Your task to perform on an android device: Clear all items from cart on newegg. Search for usb-c to usb-b on newegg, select the first entry, add it to the cart, then select checkout. Image 0: 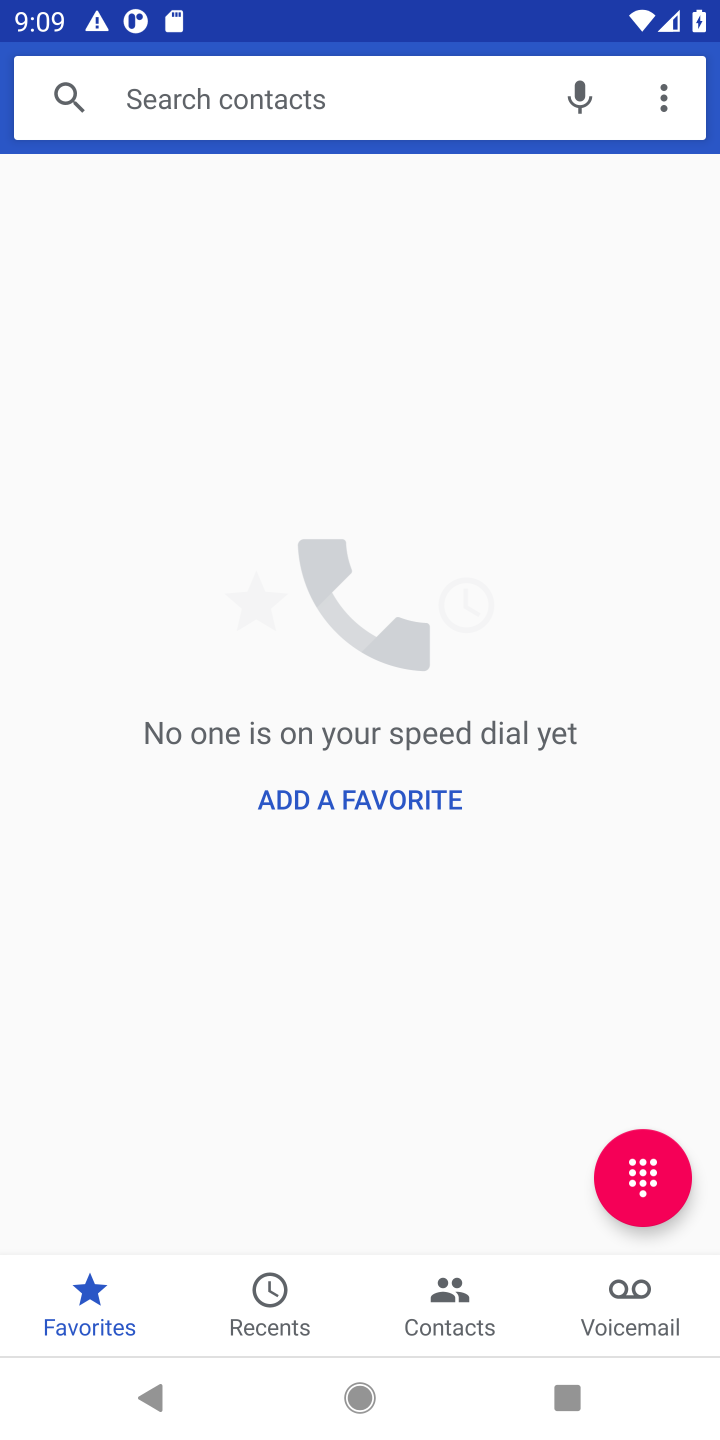
Step 0: press home button
Your task to perform on an android device: Clear all items from cart on newegg. Search for usb-c to usb-b on newegg, select the first entry, add it to the cart, then select checkout. Image 1: 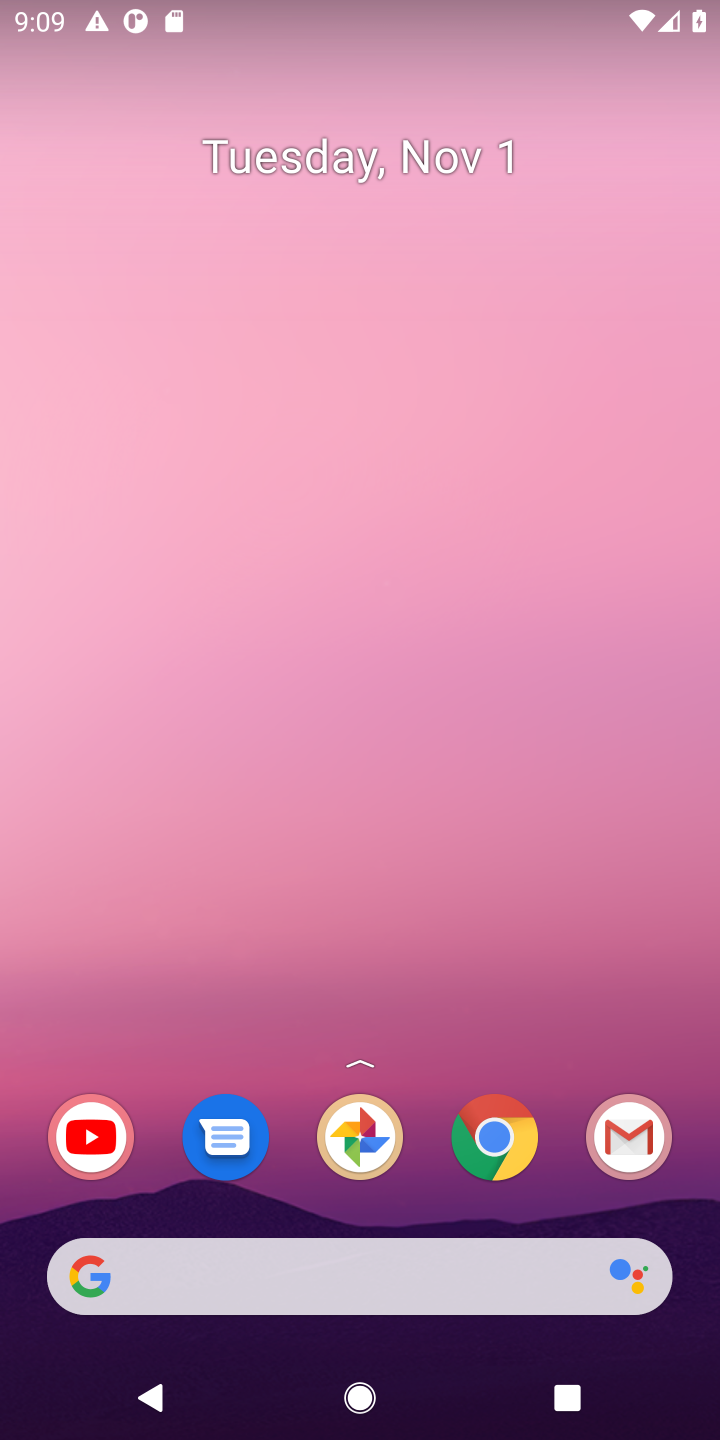
Step 1: click (262, 1255)
Your task to perform on an android device: Clear all items from cart on newegg. Search for usb-c to usb-b on newegg, select the first entry, add it to the cart, then select checkout. Image 2: 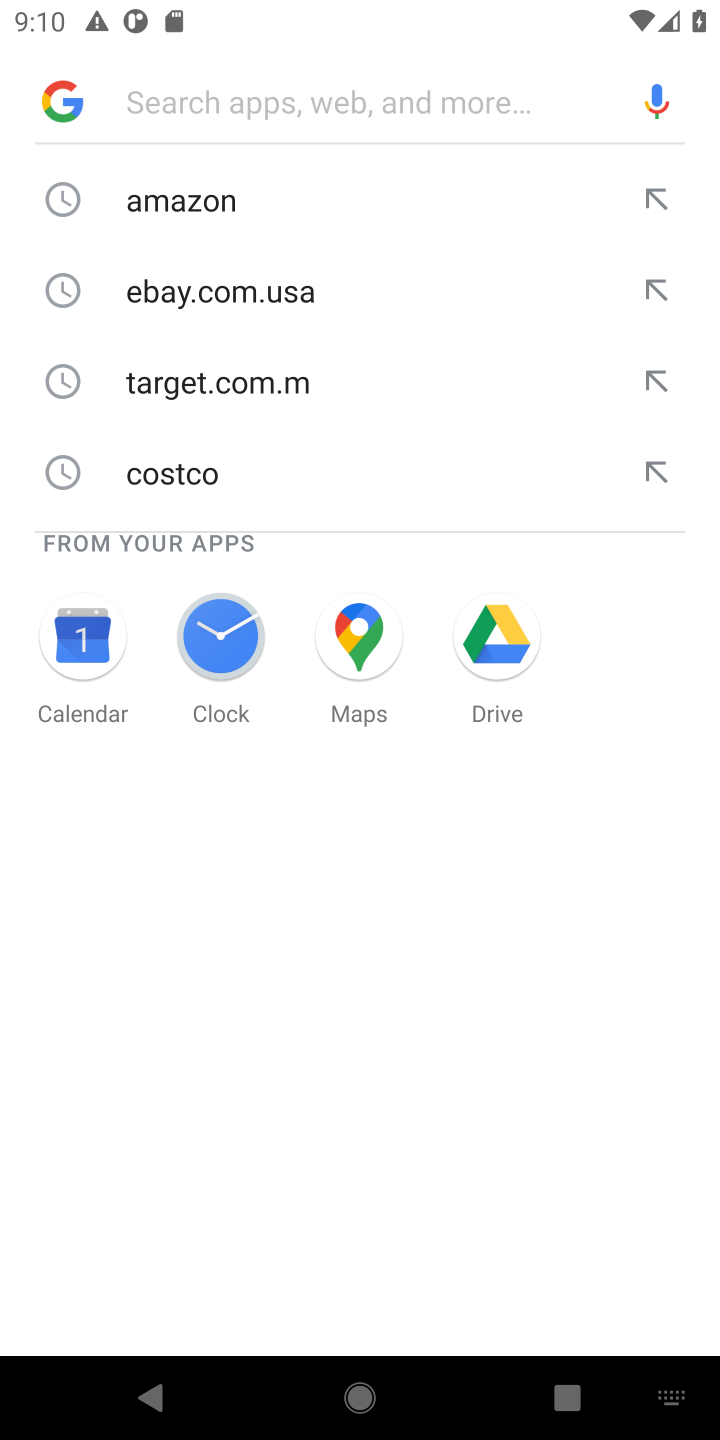
Step 2: type "newegg"
Your task to perform on an android device: Clear all items from cart on newegg. Search for usb-c to usb-b on newegg, select the first entry, add it to the cart, then select checkout. Image 3: 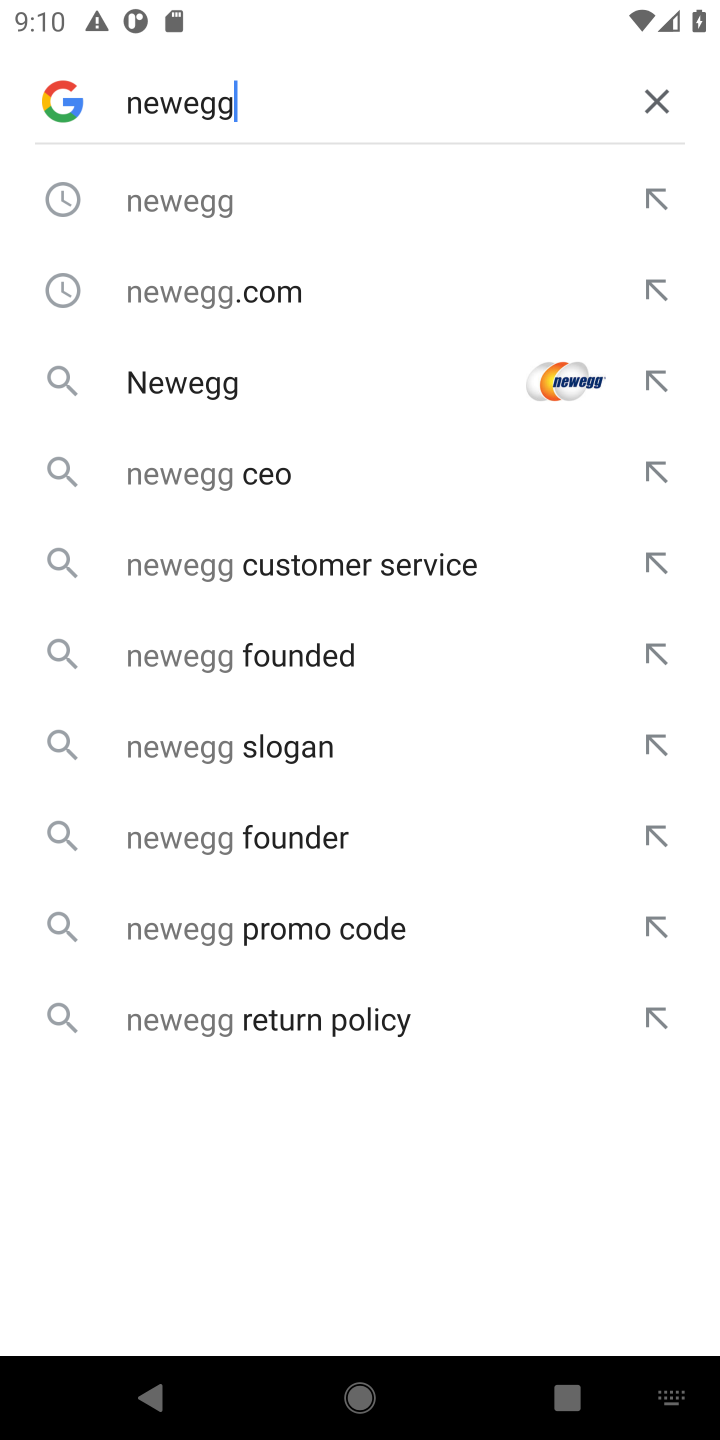
Step 3: click (398, 370)
Your task to perform on an android device: Clear all items from cart on newegg. Search for usb-c to usb-b on newegg, select the first entry, add it to the cart, then select checkout. Image 4: 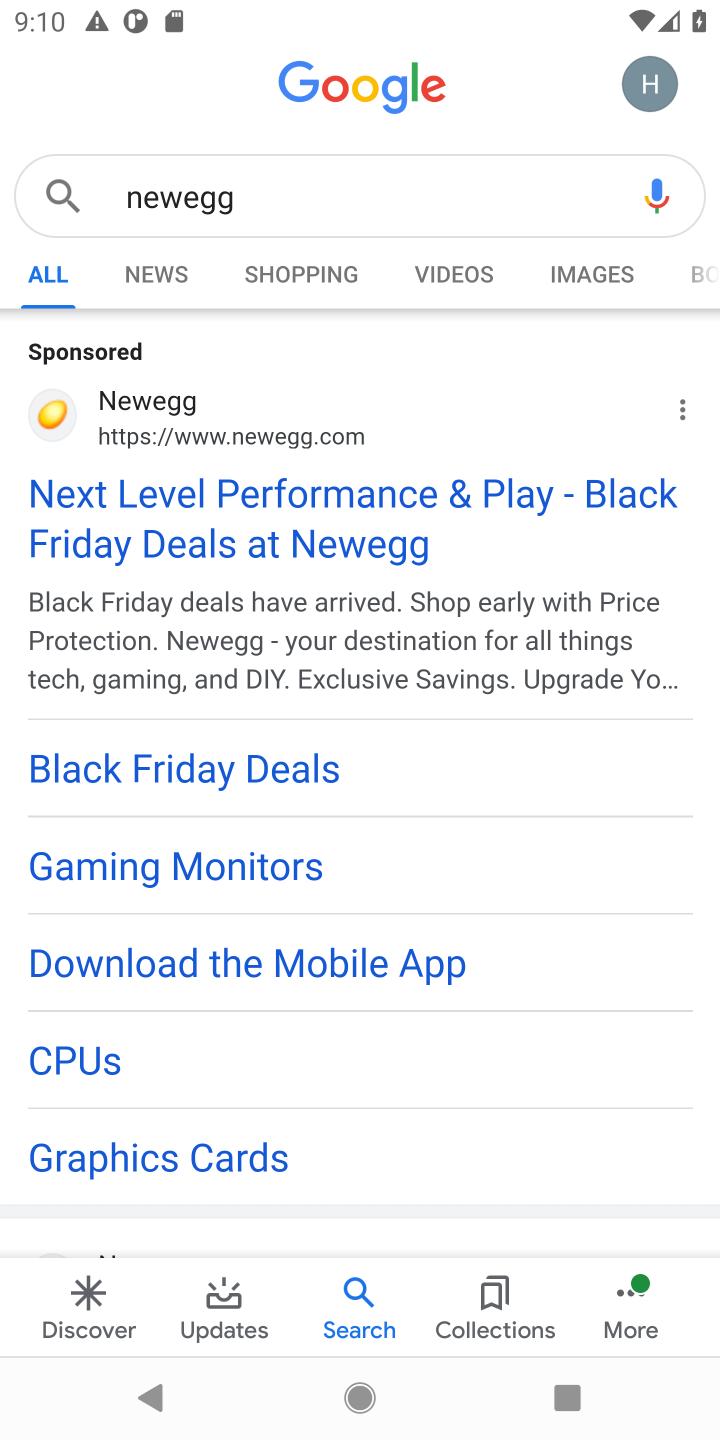
Step 4: click (112, 428)
Your task to perform on an android device: Clear all items from cart on newegg. Search for usb-c to usb-b on newegg, select the first entry, add it to the cart, then select checkout. Image 5: 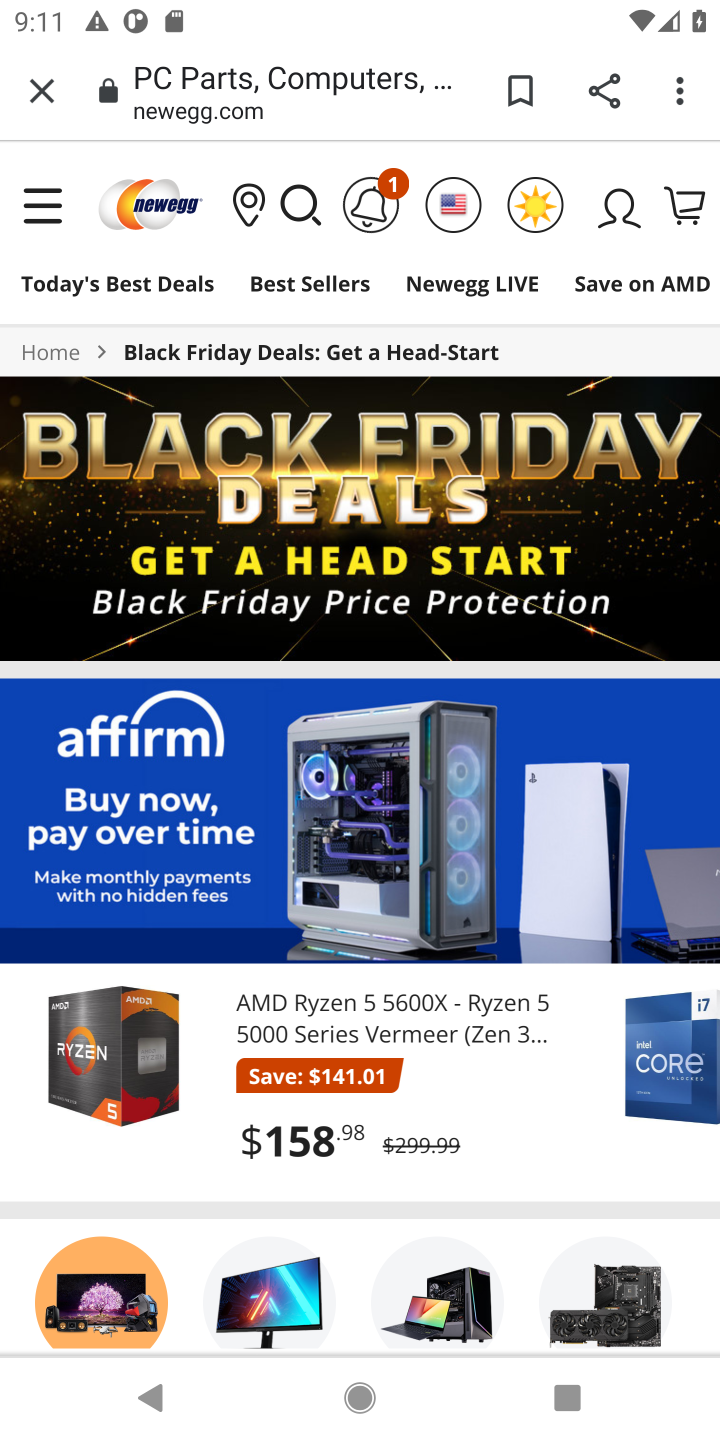
Step 5: click (293, 208)
Your task to perform on an android device: Clear all items from cart on newegg. Search for usb-c to usb-b on newegg, select the first entry, add it to the cart, then select checkout. Image 6: 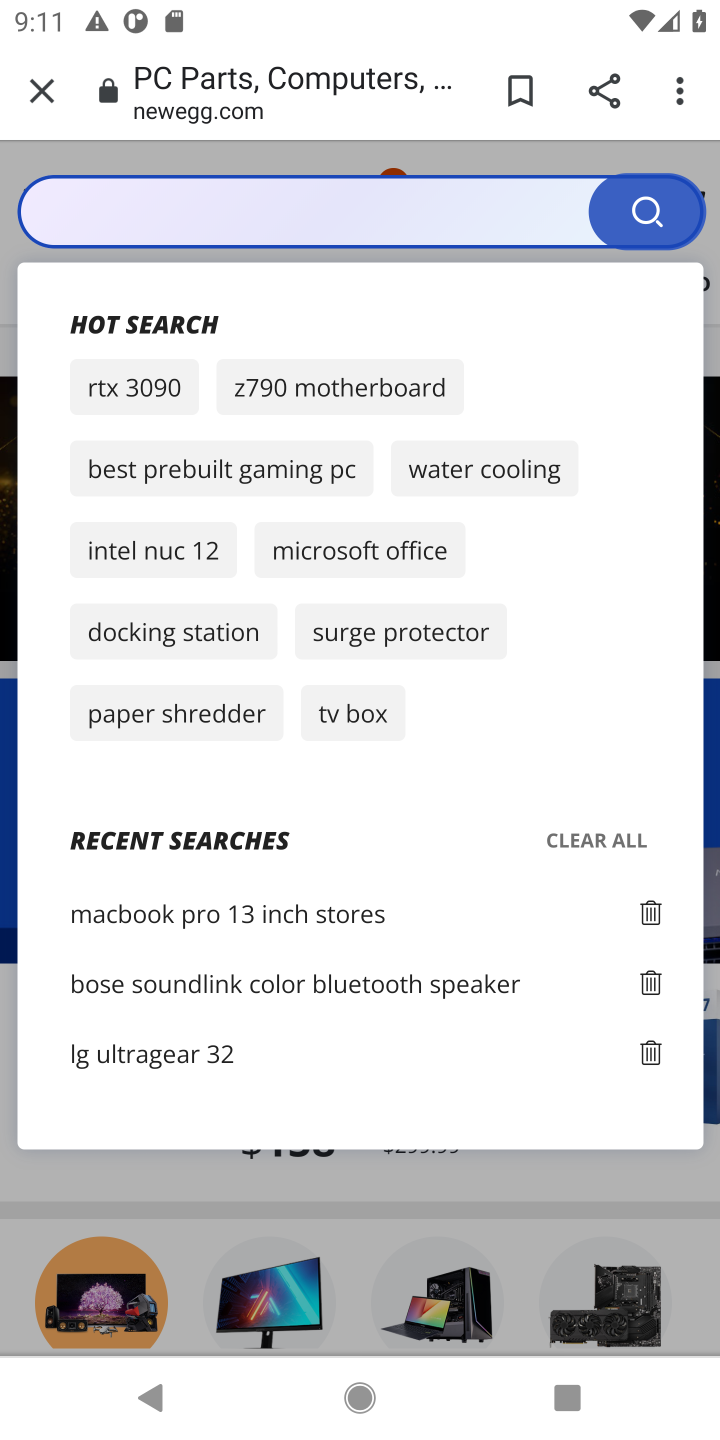
Step 6: click (293, 208)
Your task to perform on an android device: Clear all items from cart on newegg. Search for usb-c to usb-b on newegg, select the first entry, add it to the cart, then select checkout. Image 7: 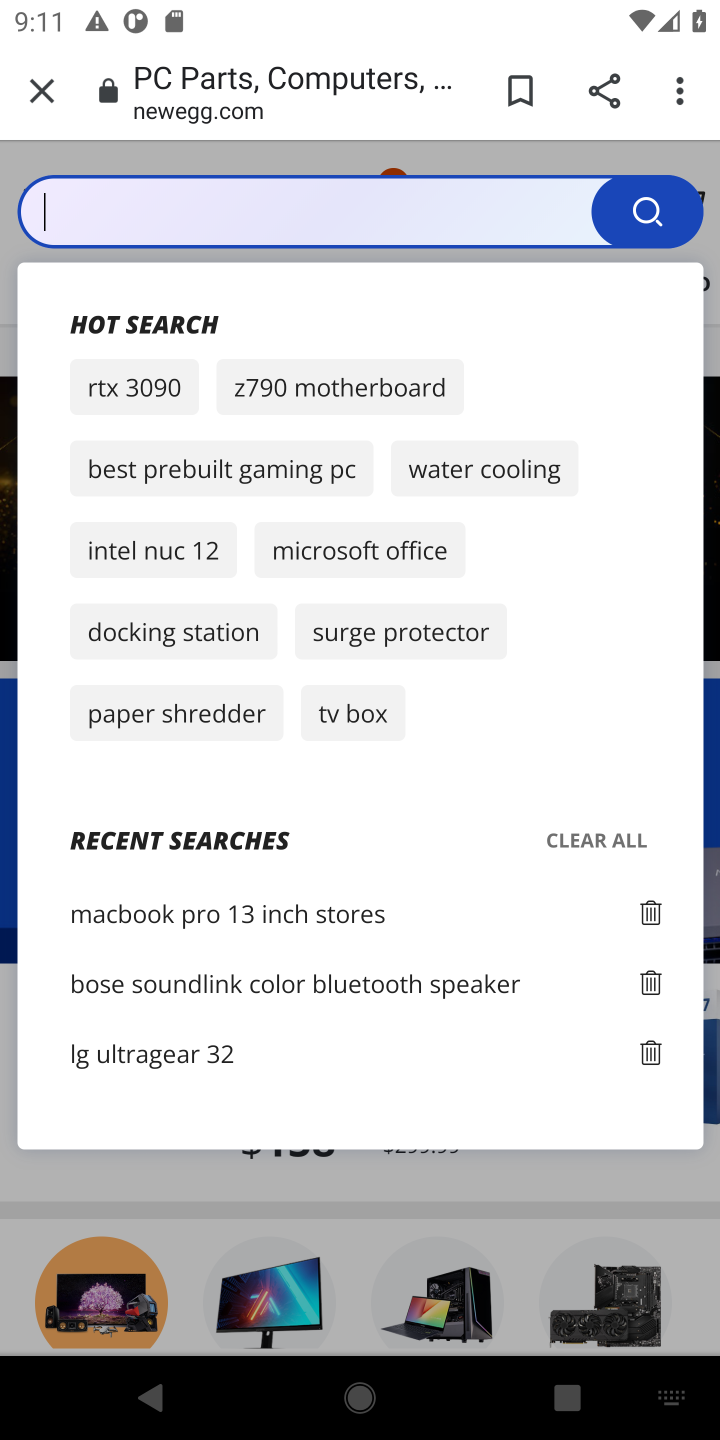
Step 7: type "c to usb-b"
Your task to perform on an android device: Clear all items from cart on newegg. Search for usb-c to usb-b on newegg, select the first entry, add it to the cart, then select checkout. Image 8: 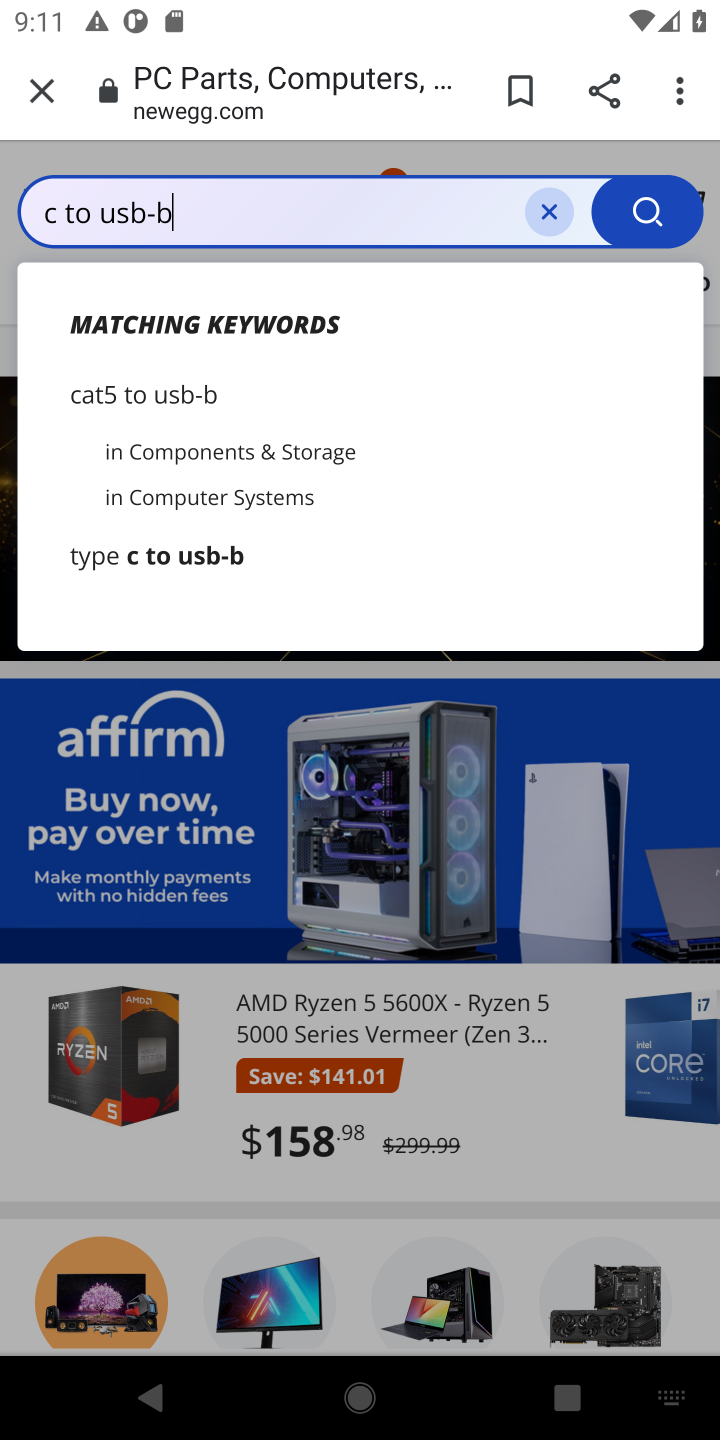
Step 8: click (226, 409)
Your task to perform on an android device: Clear all items from cart on newegg. Search for usb-c to usb-b on newegg, select the first entry, add it to the cart, then select checkout. Image 9: 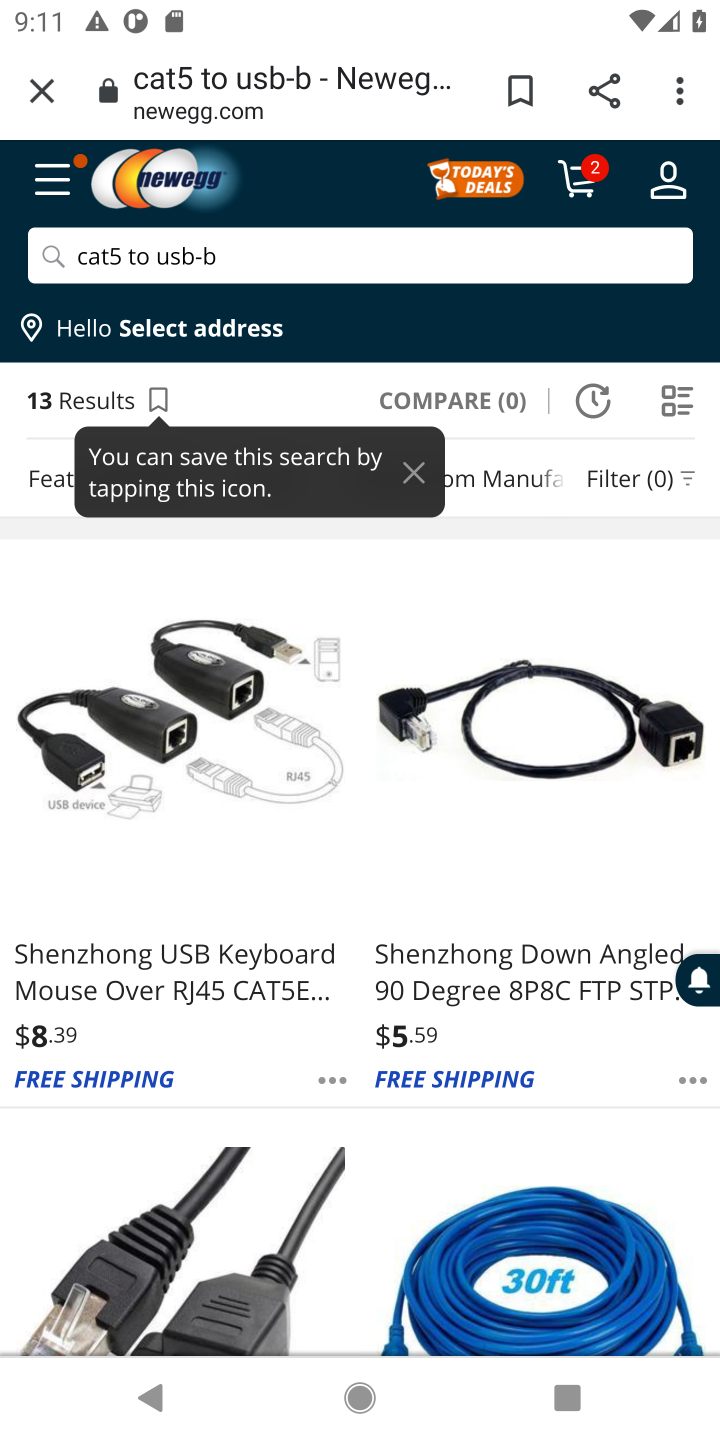
Step 9: click (148, 774)
Your task to perform on an android device: Clear all items from cart on newegg. Search for usb-c to usb-b on newegg, select the first entry, add it to the cart, then select checkout. Image 10: 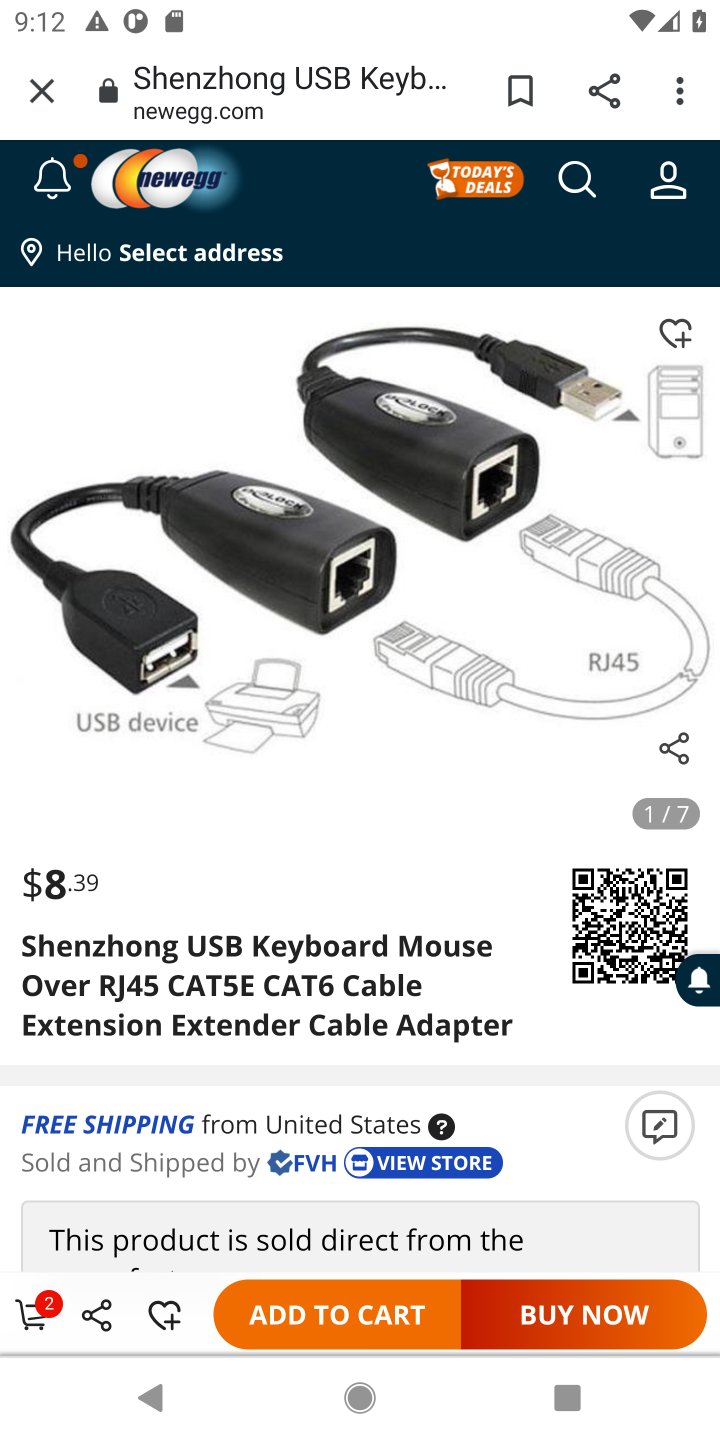
Step 10: press back button
Your task to perform on an android device: Clear all items from cart on newegg. Search for usb-c to usb-b on newegg, select the first entry, add it to the cart, then select checkout. Image 11: 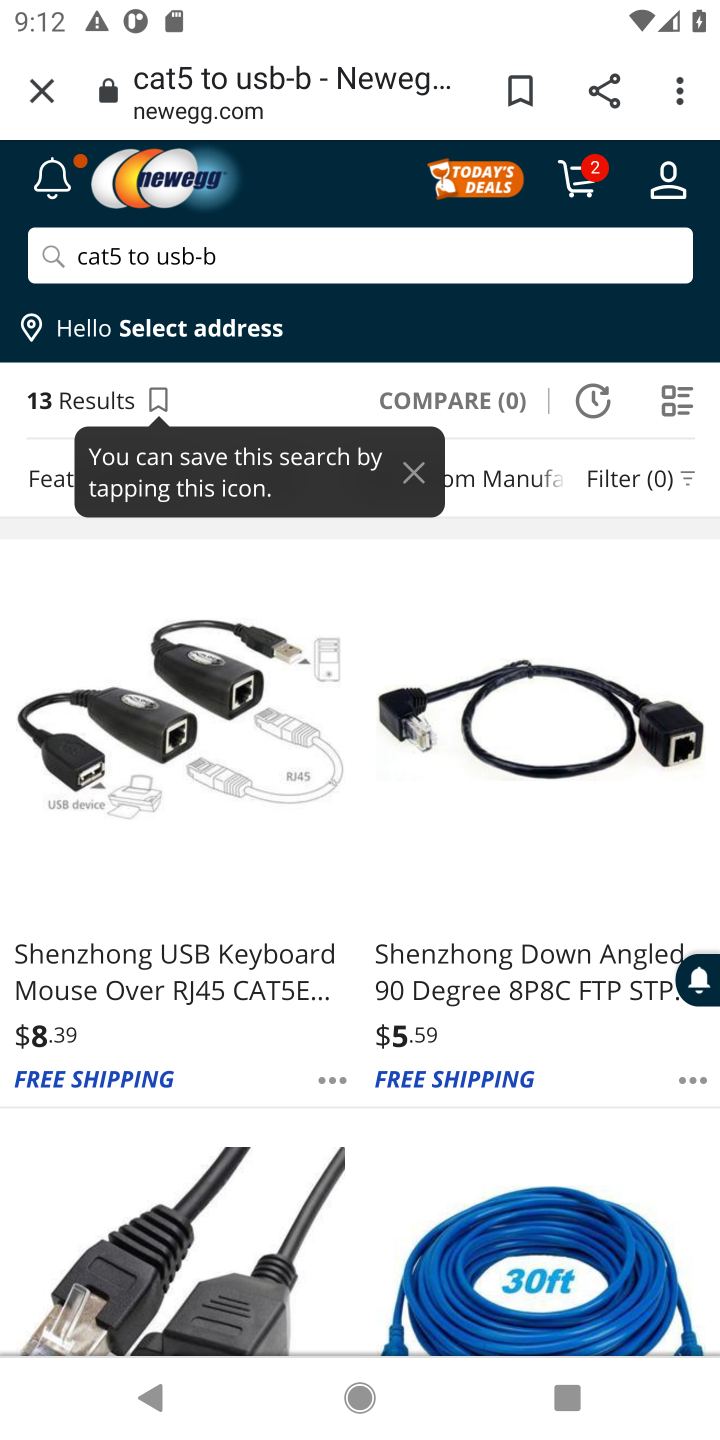
Step 11: click (577, 178)
Your task to perform on an android device: Clear all items from cart on newegg. Search for usb-c to usb-b on newegg, select the first entry, add it to the cart, then select checkout. Image 12: 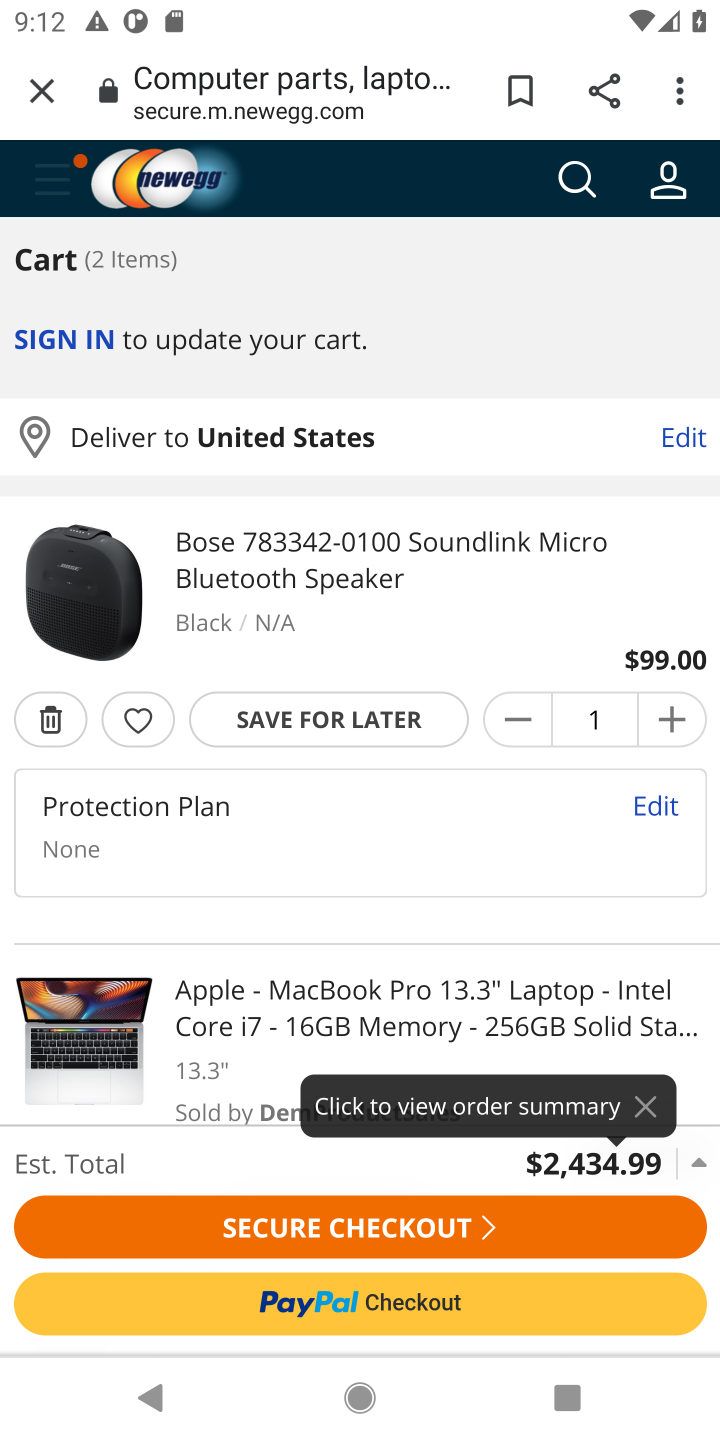
Step 12: click (38, 715)
Your task to perform on an android device: Clear all items from cart on newegg. Search for usb-c to usb-b on newegg, select the first entry, add it to the cart, then select checkout. Image 13: 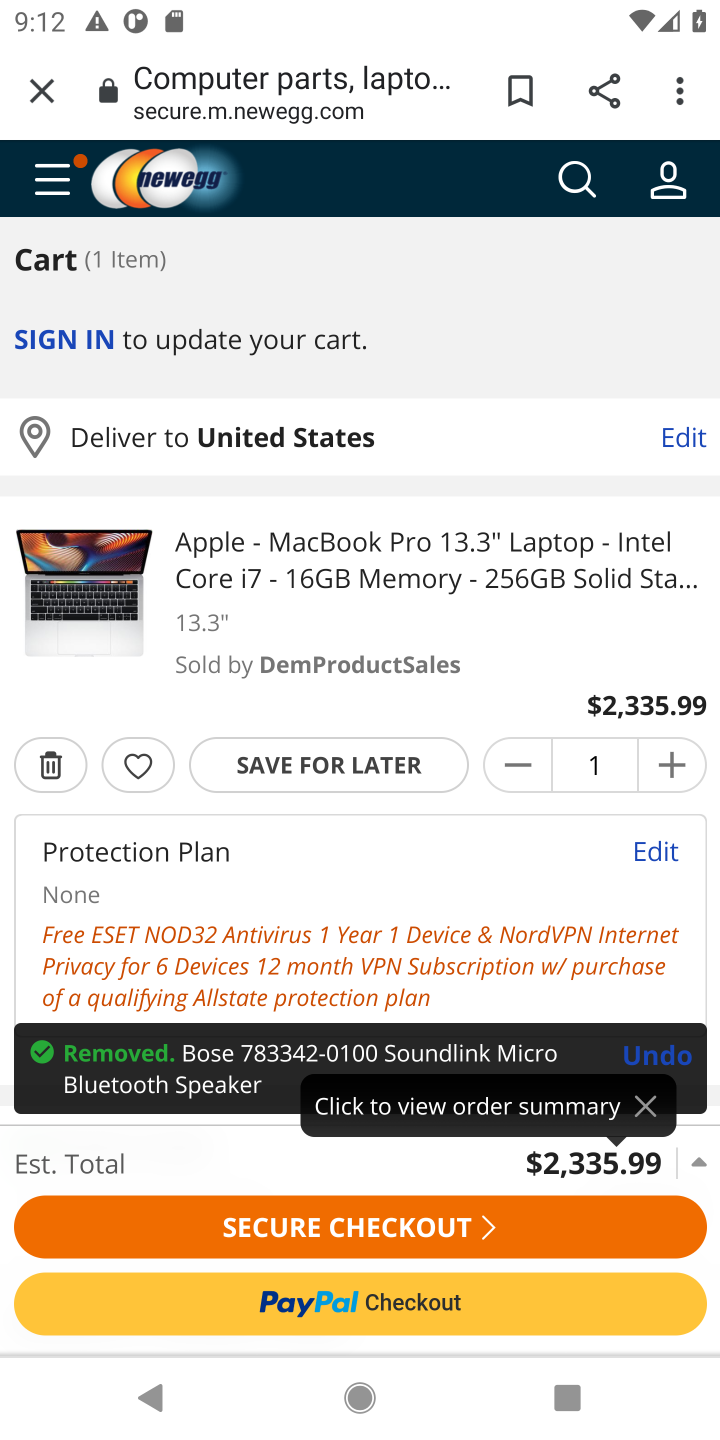
Step 13: click (58, 762)
Your task to perform on an android device: Clear all items from cart on newegg. Search for usb-c to usb-b on newegg, select the first entry, add it to the cart, then select checkout. Image 14: 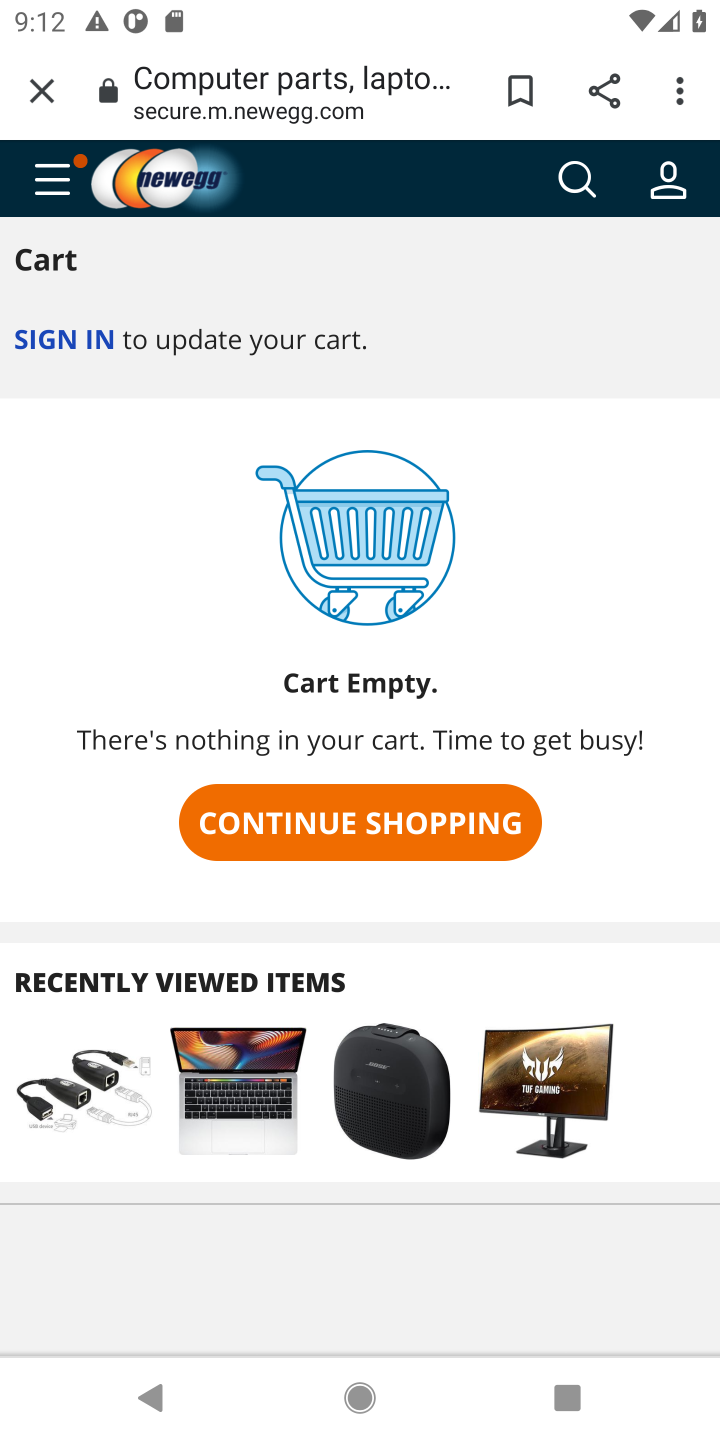
Step 14: click (563, 191)
Your task to perform on an android device: Clear all items from cart on newegg. Search for usb-c to usb-b on newegg, select the first entry, add it to the cart, then select checkout. Image 15: 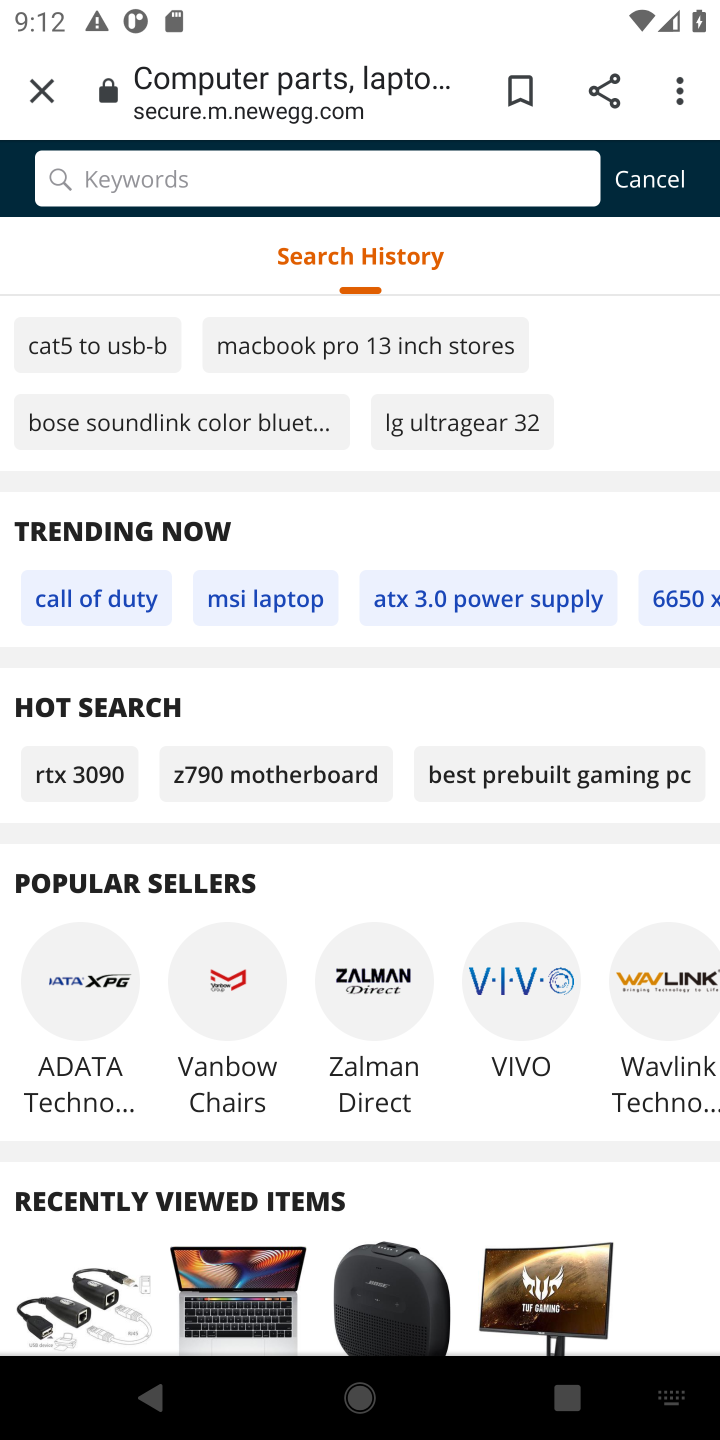
Step 15: type "c to usb-b"
Your task to perform on an android device: Clear all items from cart on newegg. Search for usb-c to usb-b on newegg, select the first entry, add it to the cart, then select checkout. Image 16: 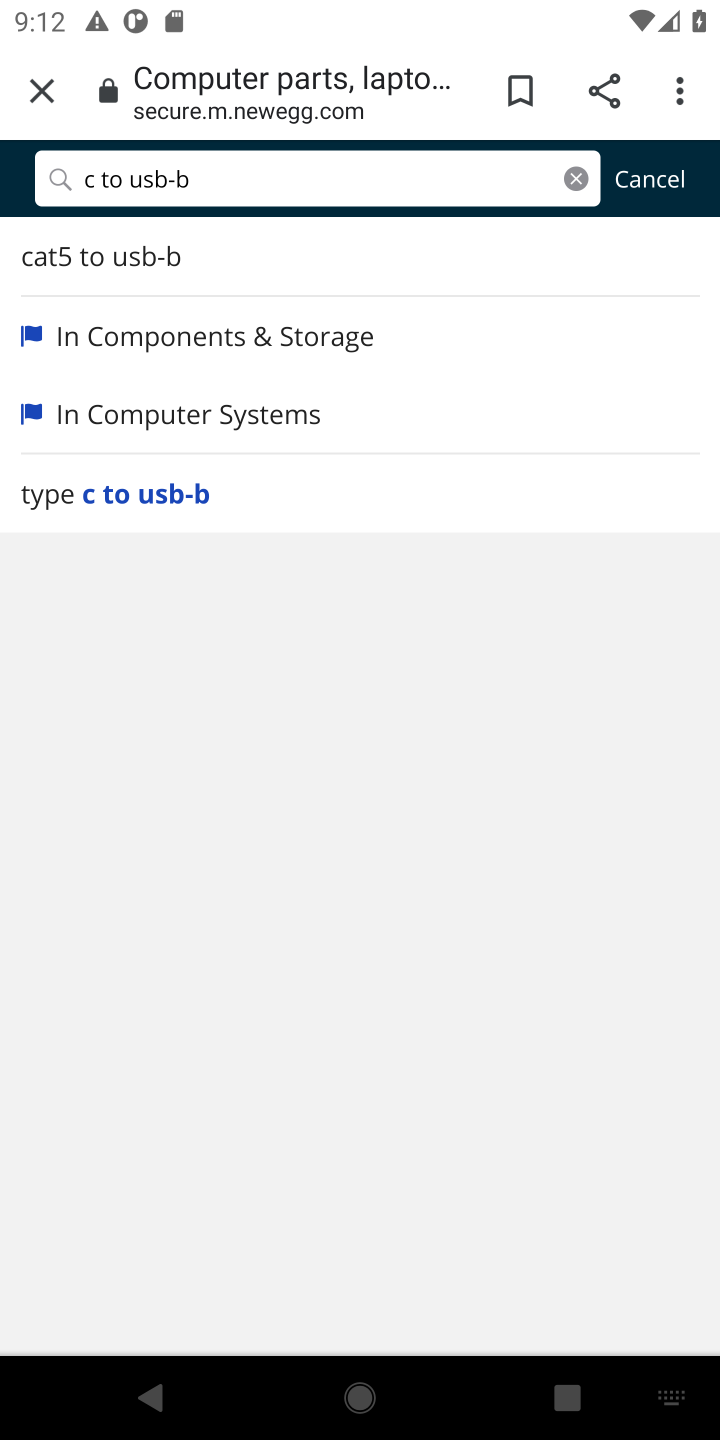
Step 16: click (124, 251)
Your task to perform on an android device: Clear all items from cart on newegg. Search for usb-c to usb-b on newegg, select the first entry, add it to the cart, then select checkout. Image 17: 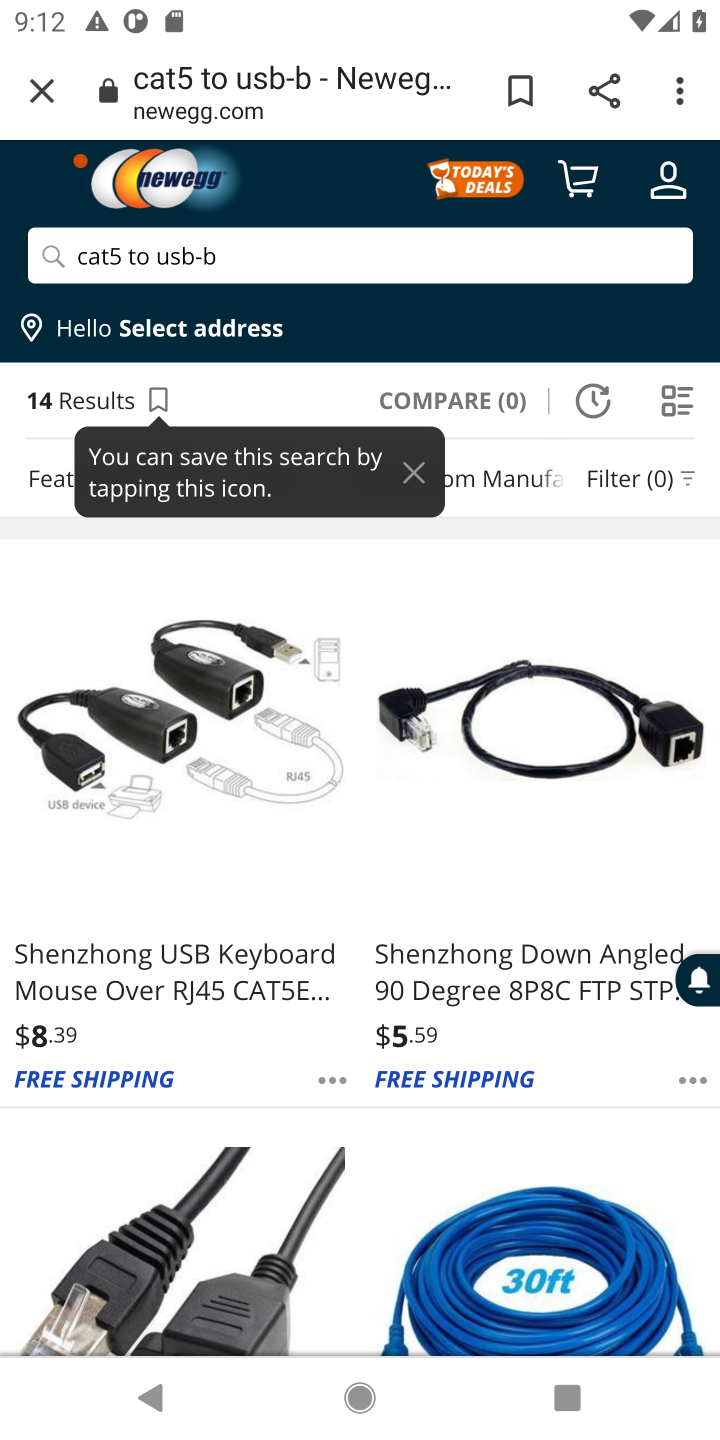
Step 17: click (161, 773)
Your task to perform on an android device: Clear all items from cart on newegg. Search for usb-c to usb-b on newegg, select the first entry, add it to the cart, then select checkout. Image 18: 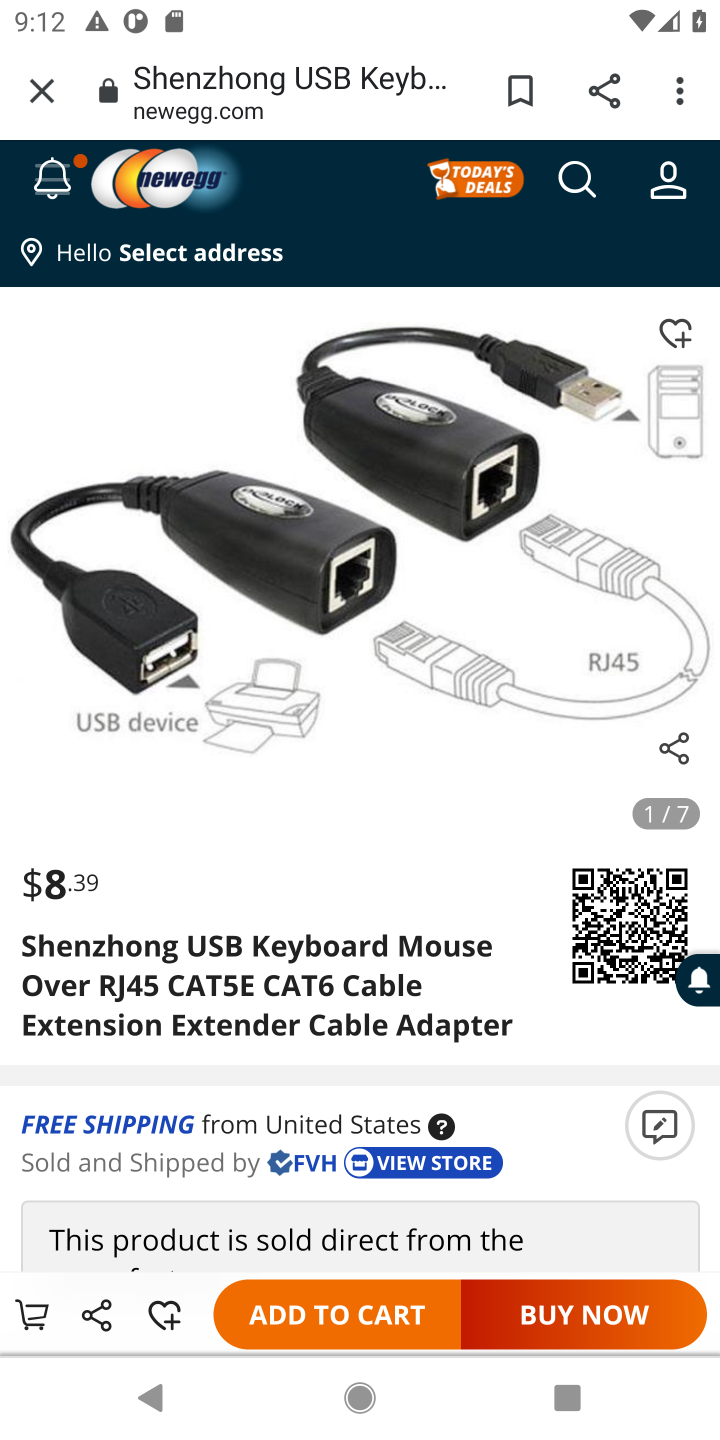
Step 18: click (307, 1309)
Your task to perform on an android device: Clear all items from cart on newegg. Search for usb-c to usb-b on newegg, select the first entry, add it to the cart, then select checkout. Image 19: 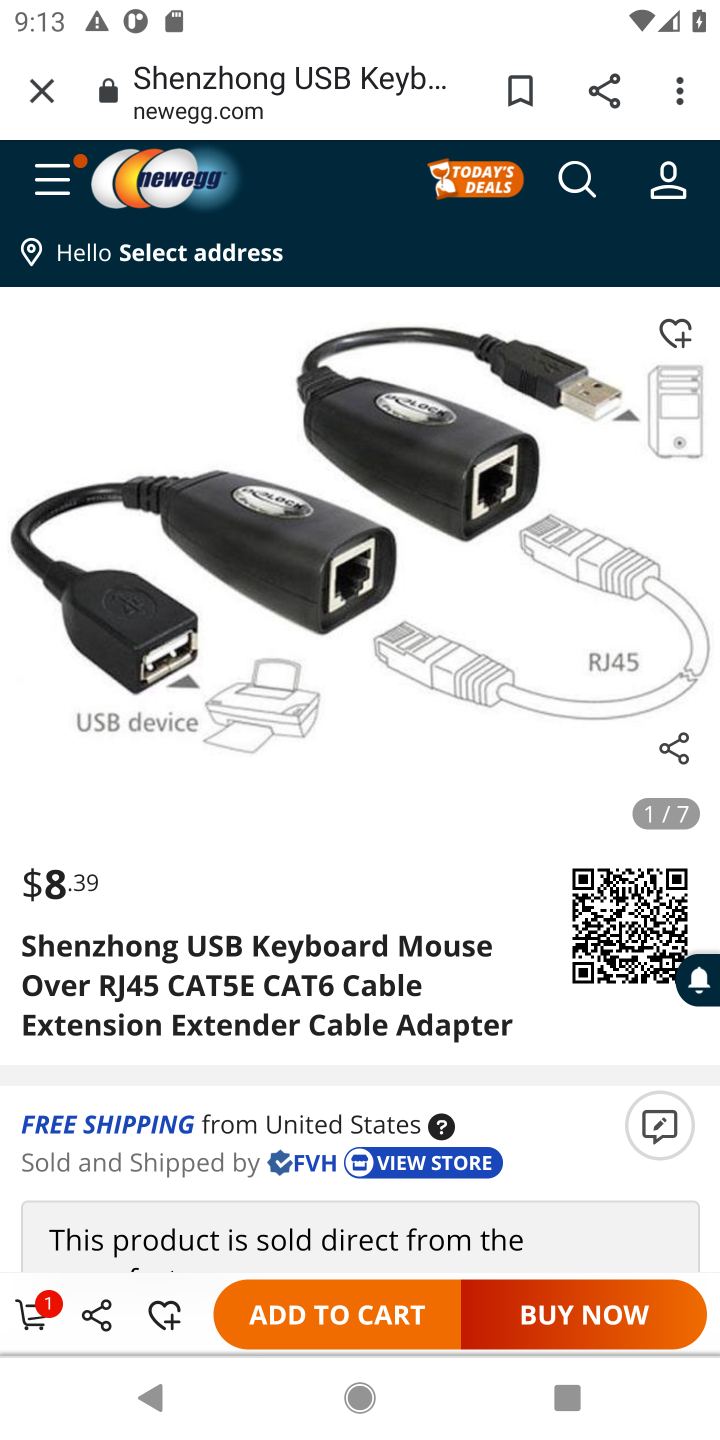
Step 19: click (48, 1311)
Your task to perform on an android device: Clear all items from cart on newegg. Search for usb-c to usb-b on newegg, select the first entry, add it to the cart, then select checkout. Image 20: 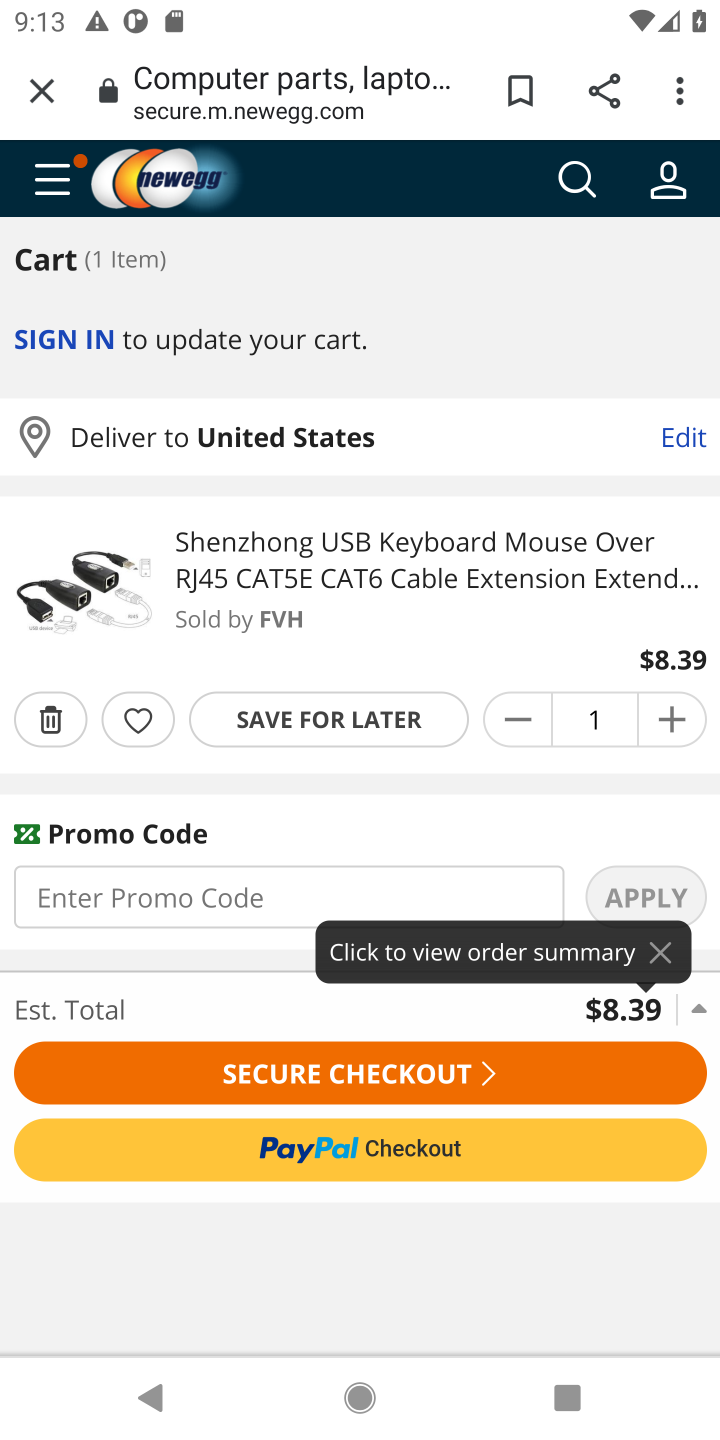
Step 20: click (335, 1083)
Your task to perform on an android device: Clear all items from cart on newegg. Search for usb-c to usb-b on newegg, select the first entry, add it to the cart, then select checkout. Image 21: 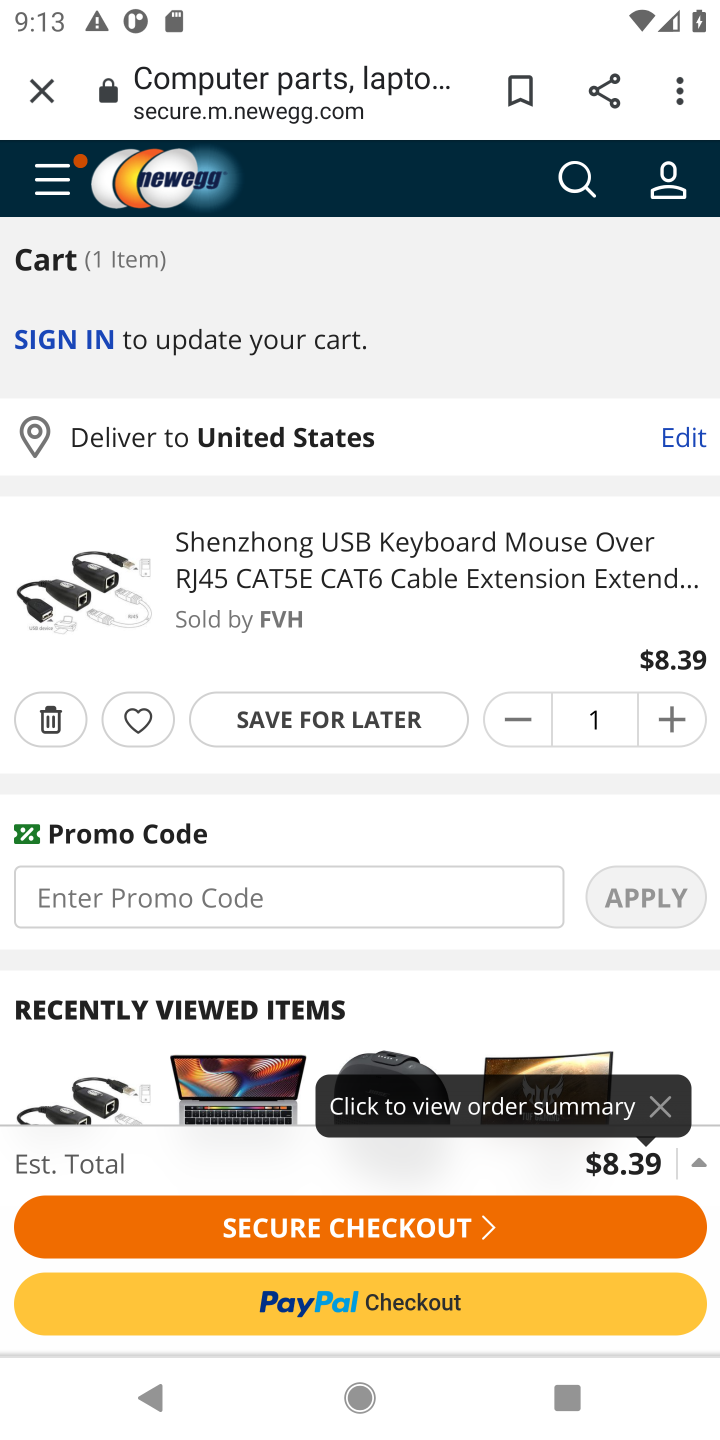
Step 21: click (356, 1225)
Your task to perform on an android device: Clear all items from cart on newegg. Search for usb-c to usb-b on newegg, select the first entry, add it to the cart, then select checkout. Image 22: 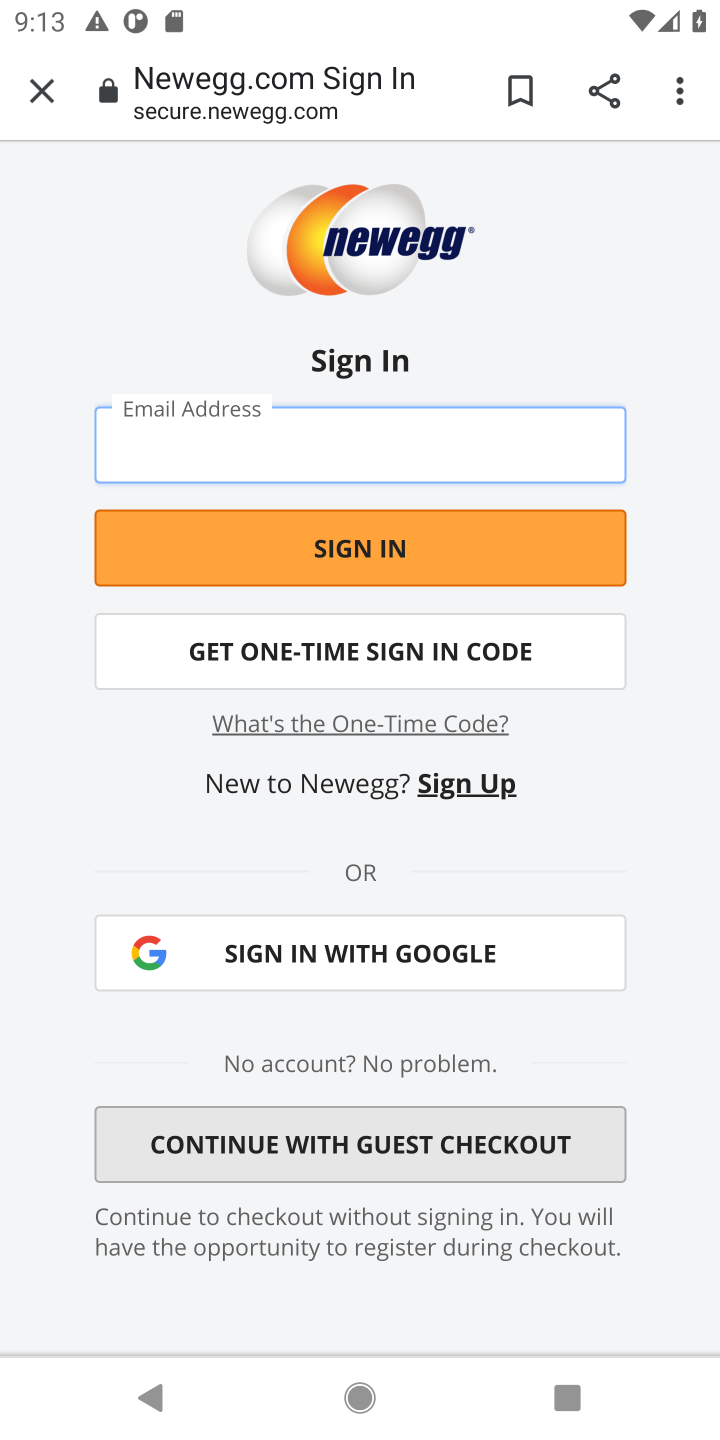
Step 22: task complete